Your task to perform on an android device: What's on my calendar tomorrow? Image 0: 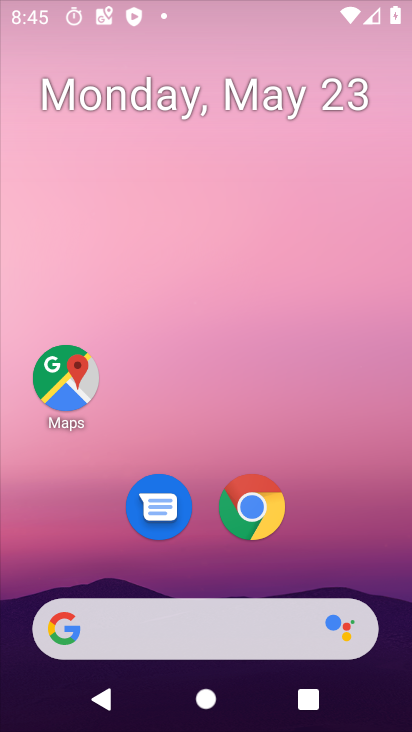
Step 0: drag from (343, 386) to (307, 56)
Your task to perform on an android device: What's on my calendar tomorrow? Image 1: 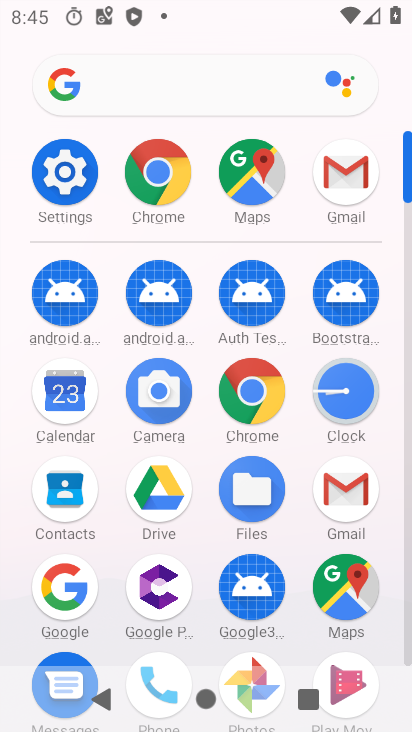
Step 1: click (78, 415)
Your task to perform on an android device: What's on my calendar tomorrow? Image 2: 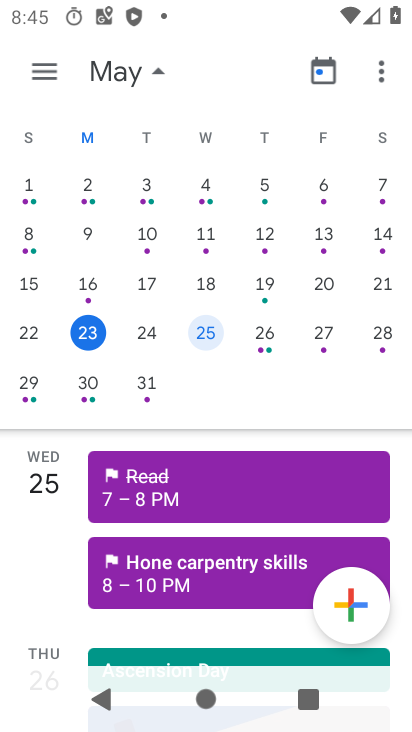
Step 2: click (142, 330)
Your task to perform on an android device: What's on my calendar tomorrow? Image 3: 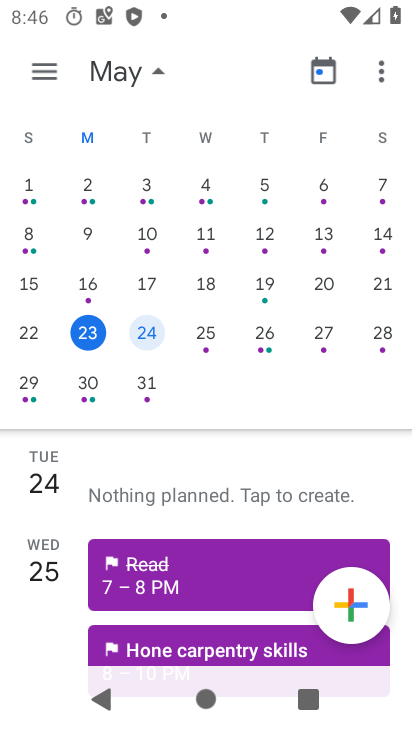
Step 3: task complete